Your task to perform on an android device: change notifications settings Image 0: 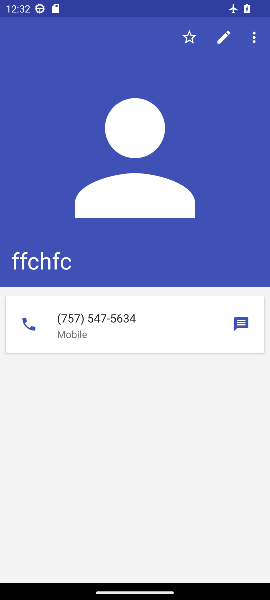
Step 0: press home button
Your task to perform on an android device: change notifications settings Image 1: 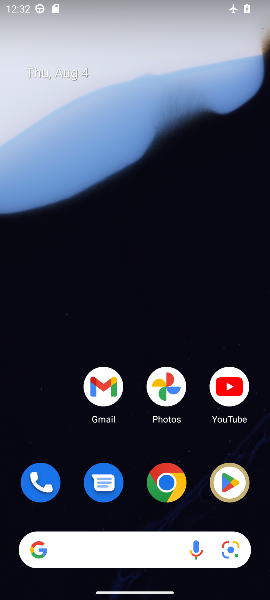
Step 1: drag from (134, 448) to (127, 53)
Your task to perform on an android device: change notifications settings Image 2: 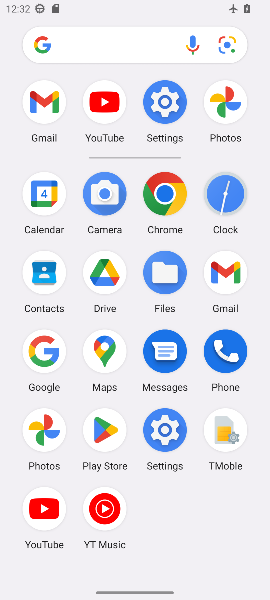
Step 2: click (168, 114)
Your task to perform on an android device: change notifications settings Image 3: 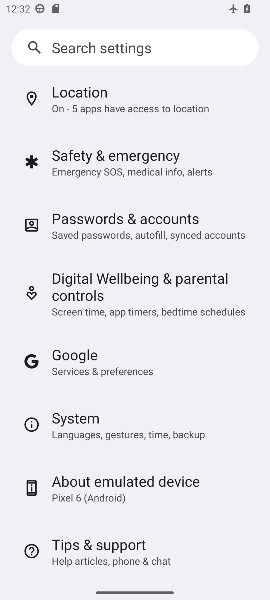
Step 3: drag from (125, 332) to (130, 497)
Your task to perform on an android device: change notifications settings Image 4: 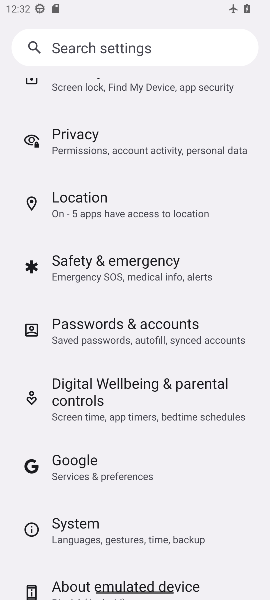
Step 4: drag from (131, 161) to (139, 377)
Your task to perform on an android device: change notifications settings Image 5: 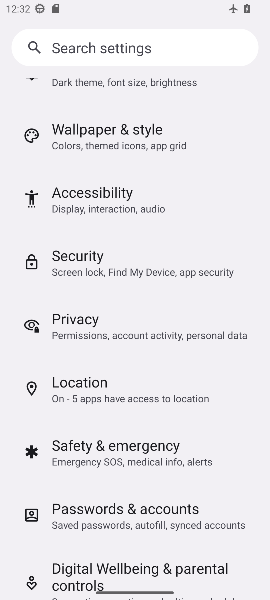
Step 5: drag from (139, 150) to (139, 397)
Your task to perform on an android device: change notifications settings Image 6: 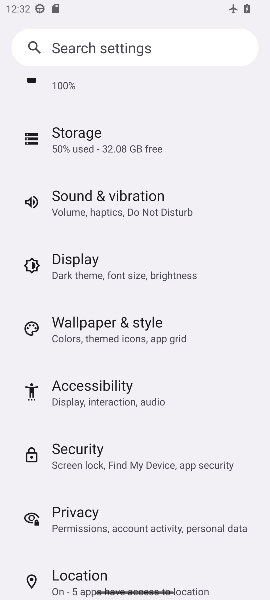
Step 6: drag from (143, 180) to (143, 387)
Your task to perform on an android device: change notifications settings Image 7: 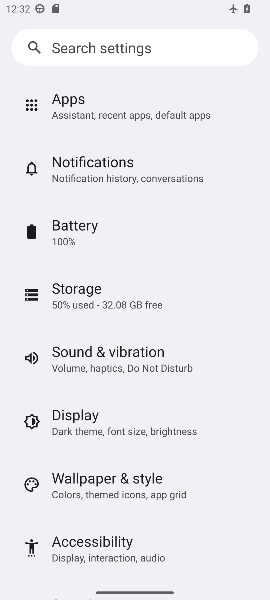
Step 7: drag from (119, 209) to (119, 387)
Your task to perform on an android device: change notifications settings Image 8: 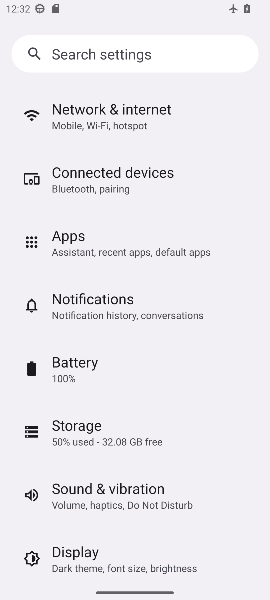
Step 8: click (116, 302)
Your task to perform on an android device: change notifications settings Image 9: 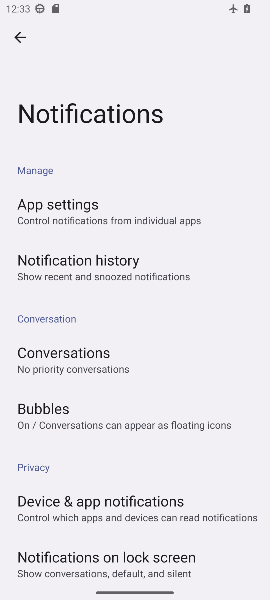
Step 9: drag from (119, 448) to (153, 216)
Your task to perform on an android device: change notifications settings Image 10: 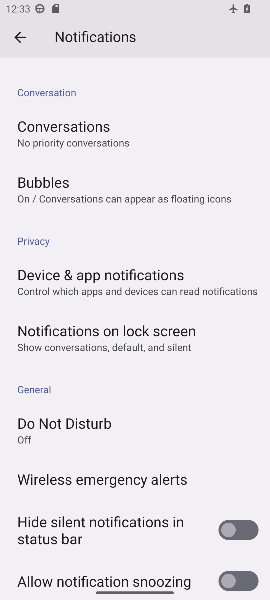
Step 10: click (134, 350)
Your task to perform on an android device: change notifications settings Image 11: 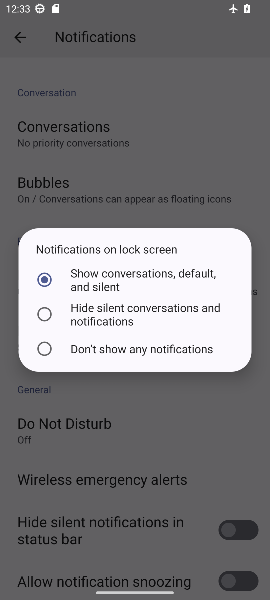
Step 11: click (131, 337)
Your task to perform on an android device: change notifications settings Image 12: 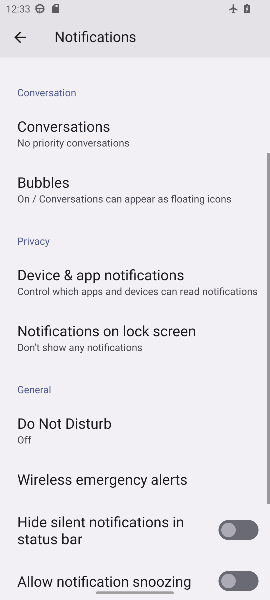
Step 12: task complete